Your task to perform on an android device: visit the assistant section in the google photos Image 0: 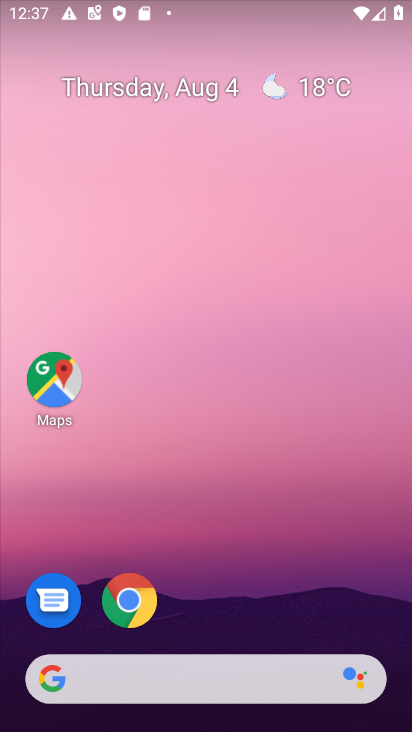
Step 0: drag from (162, 683) to (308, 277)
Your task to perform on an android device: visit the assistant section in the google photos Image 1: 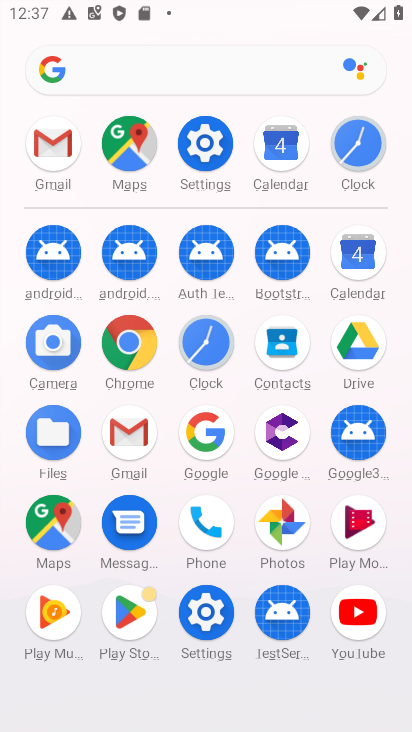
Step 1: click (284, 529)
Your task to perform on an android device: visit the assistant section in the google photos Image 2: 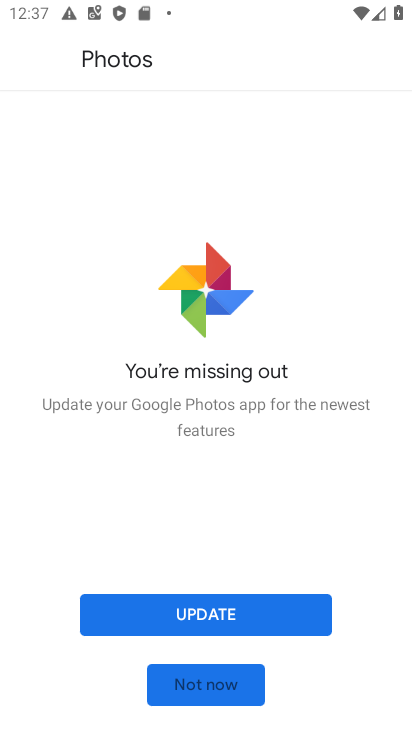
Step 2: click (224, 622)
Your task to perform on an android device: visit the assistant section in the google photos Image 3: 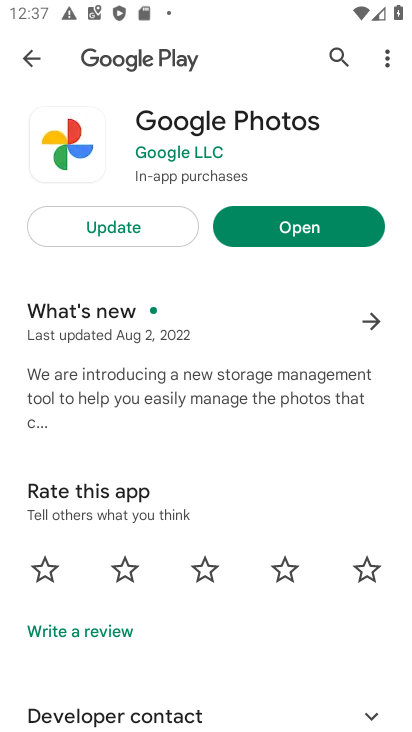
Step 3: click (337, 226)
Your task to perform on an android device: visit the assistant section in the google photos Image 4: 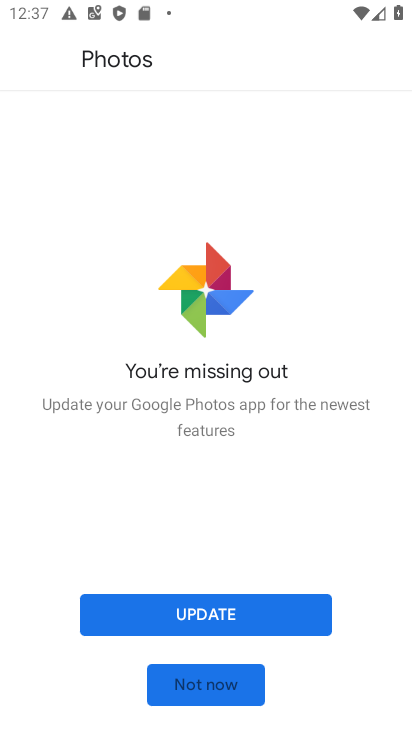
Step 4: click (234, 605)
Your task to perform on an android device: visit the assistant section in the google photos Image 5: 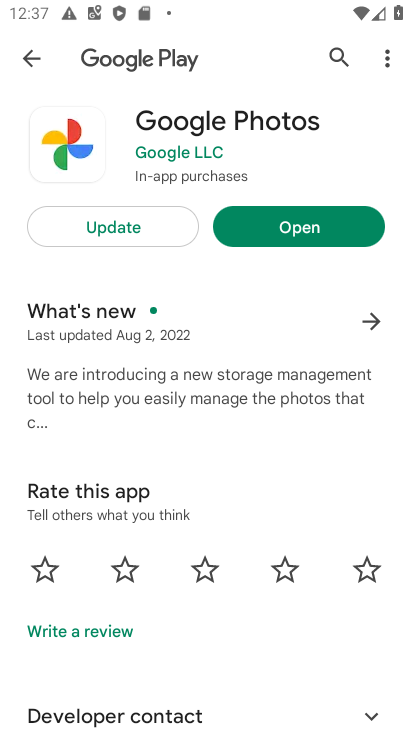
Step 5: click (134, 225)
Your task to perform on an android device: visit the assistant section in the google photos Image 6: 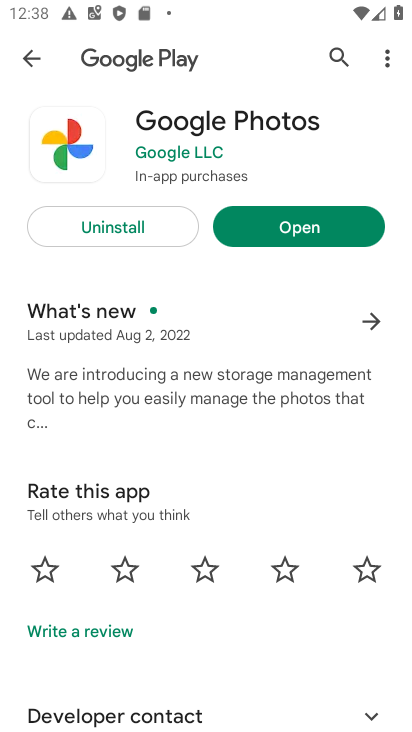
Step 6: click (286, 233)
Your task to perform on an android device: visit the assistant section in the google photos Image 7: 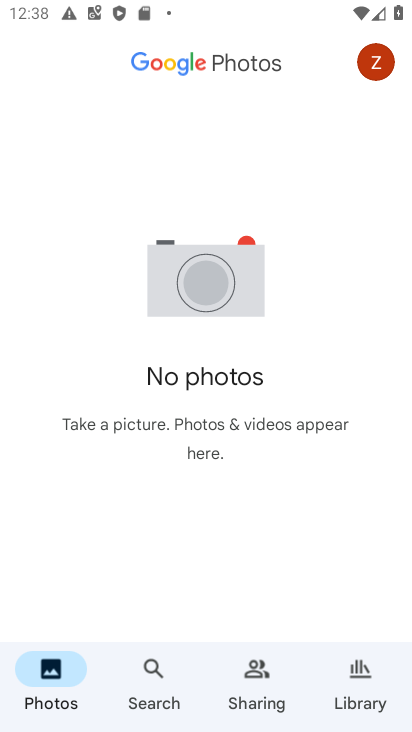
Step 7: task complete